Your task to perform on an android device: open app "Pandora - Music & Podcasts" (install if not already installed) and go to login screen Image 0: 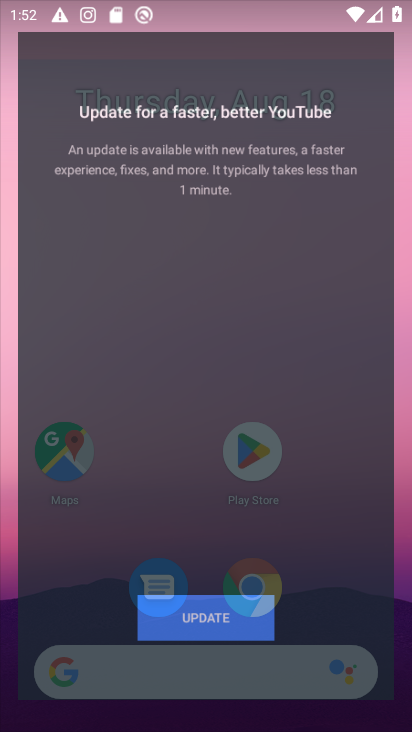
Step 0: press home button
Your task to perform on an android device: open app "Pandora - Music & Podcasts" (install if not already installed) and go to login screen Image 1: 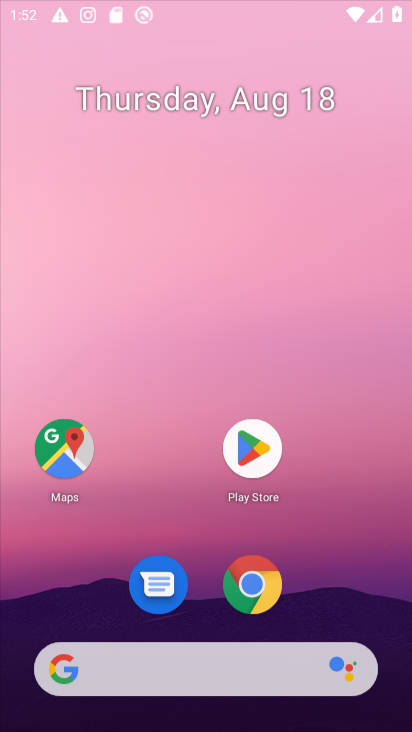
Step 1: press home button
Your task to perform on an android device: open app "Pandora - Music & Podcasts" (install if not already installed) and go to login screen Image 2: 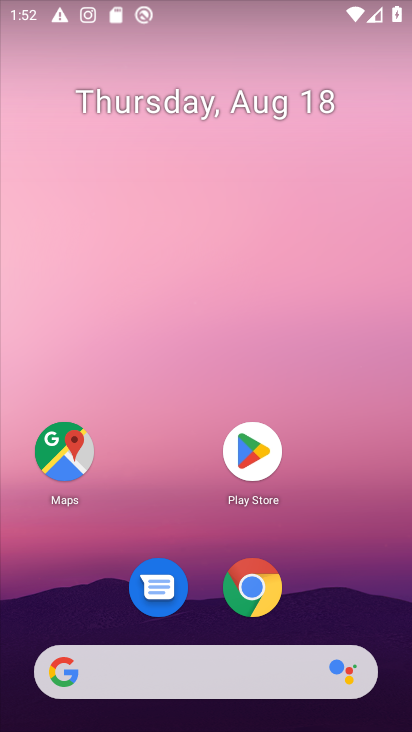
Step 2: click (258, 446)
Your task to perform on an android device: open app "Pandora - Music & Podcasts" (install if not already installed) and go to login screen Image 3: 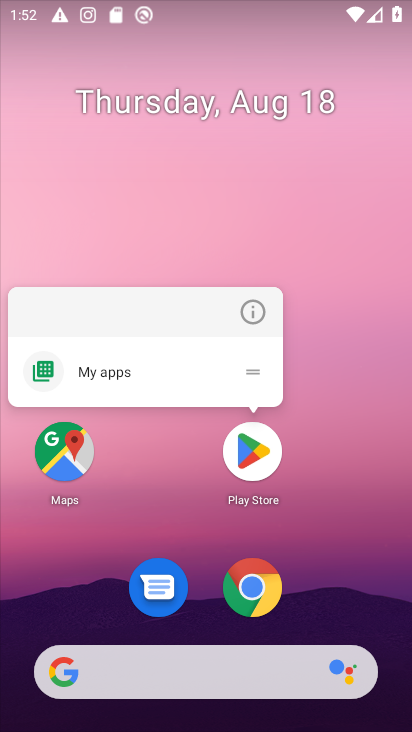
Step 3: click (258, 447)
Your task to perform on an android device: open app "Pandora - Music & Podcasts" (install if not already installed) and go to login screen Image 4: 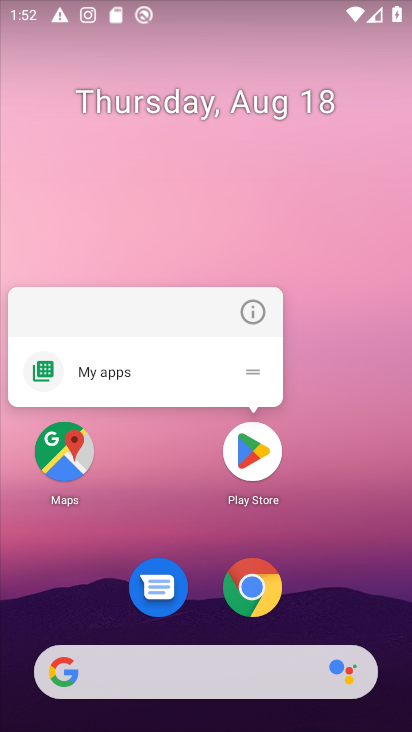
Step 4: click (251, 447)
Your task to perform on an android device: open app "Pandora - Music & Podcasts" (install if not already installed) and go to login screen Image 5: 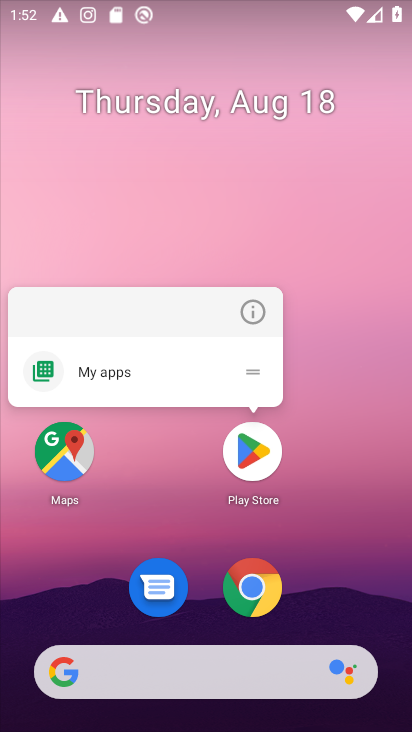
Step 5: click (245, 458)
Your task to perform on an android device: open app "Pandora - Music & Podcasts" (install if not already installed) and go to login screen Image 6: 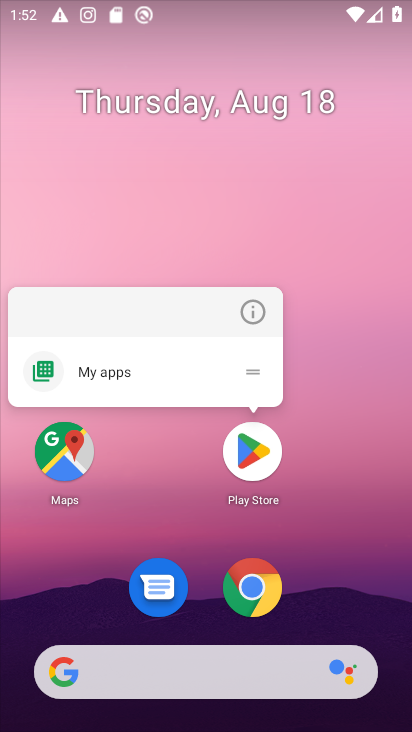
Step 6: click (252, 453)
Your task to perform on an android device: open app "Pandora - Music & Podcasts" (install if not already installed) and go to login screen Image 7: 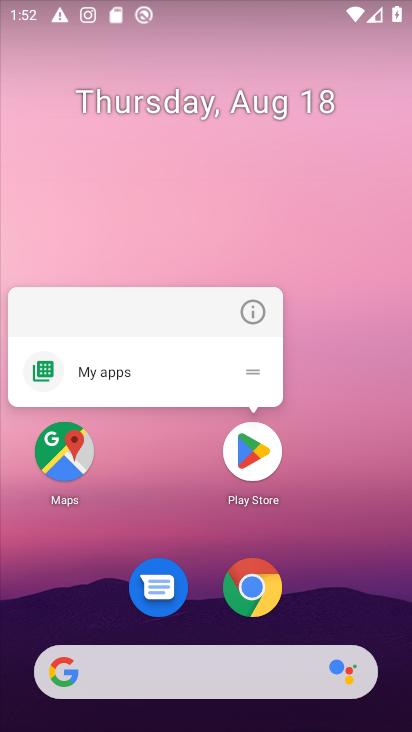
Step 7: click (240, 462)
Your task to perform on an android device: open app "Pandora - Music & Podcasts" (install if not already installed) and go to login screen Image 8: 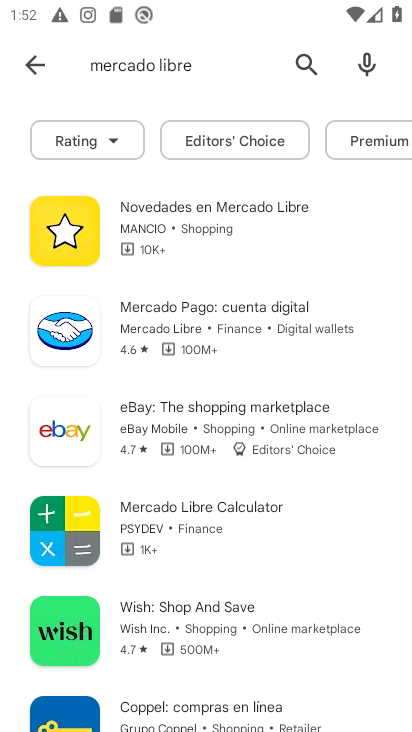
Step 8: click (303, 53)
Your task to perform on an android device: open app "Pandora - Music & Podcasts" (install if not already installed) and go to login screen Image 9: 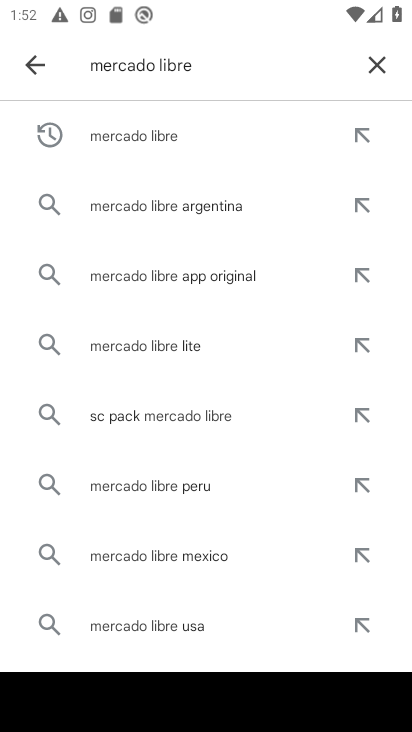
Step 9: click (372, 61)
Your task to perform on an android device: open app "Pandora - Music & Podcasts" (install if not already installed) and go to login screen Image 10: 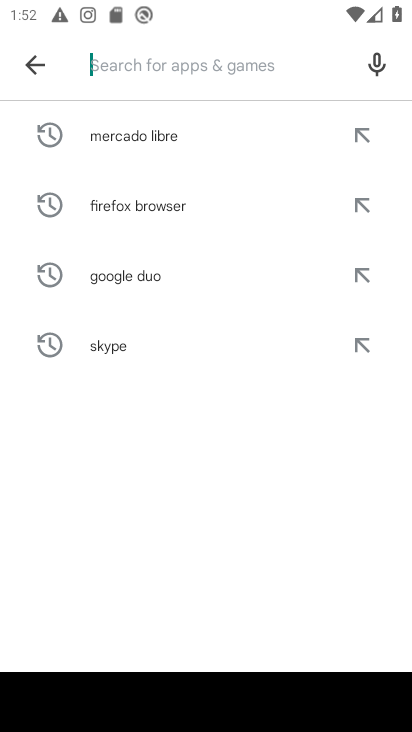
Step 10: type "Pandora - Music & Podcasts"
Your task to perform on an android device: open app "Pandora - Music & Podcasts" (install if not already installed) and go to login screen Image 11: 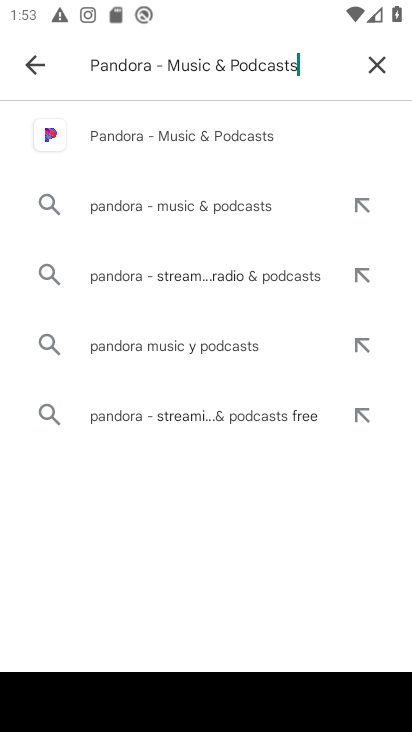
Step 11: click (210, 130)
Your task to perform on an android device: open app "Pandora - Music & Podcasts" (install if not already installed) and go to login screen Image 12: 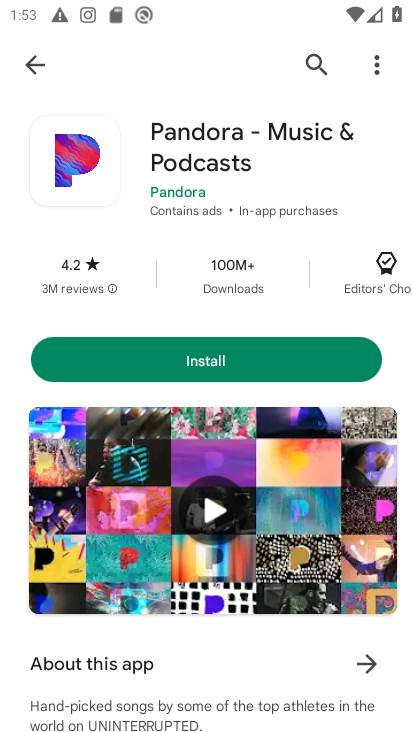
Step 12: click (202, 357)
Your task to perform on an android device: open app "Pandora - Music & Podcasts" (install if not already installed) and go to login screen Image 13: 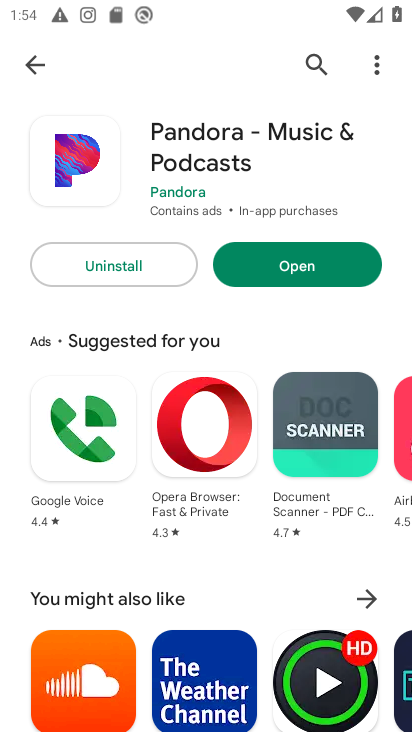
Step 13: click (305, 267)
Your task to perform on an android device: open app "Pandora - Music & Podcasts" (install if not already installed) and go to login screen Image 14: 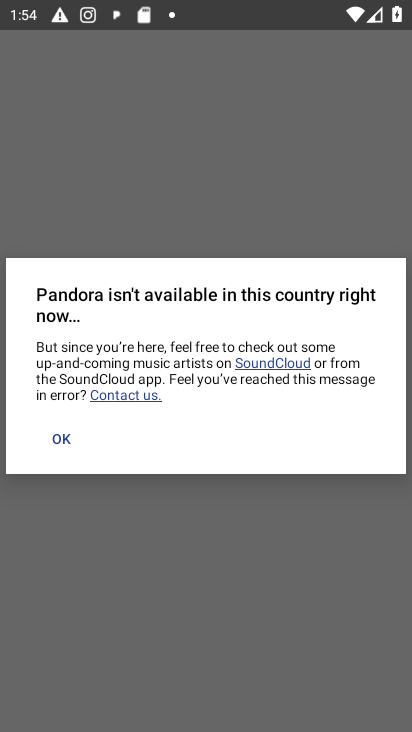
Step 14: task complete